Your task to perform on an android device: Look up the best rated coffee maker on Lowe's. Image 0: 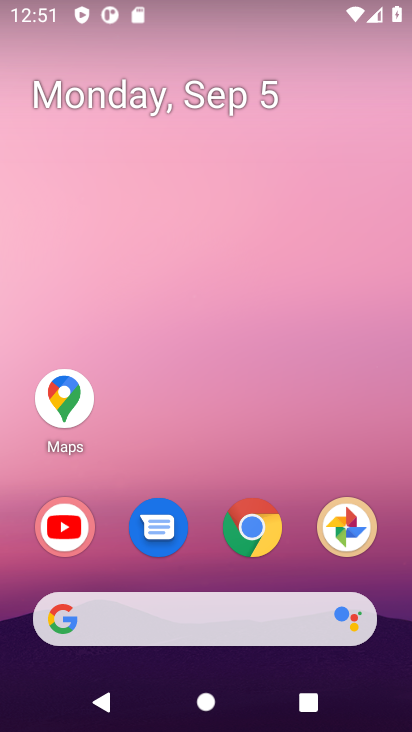
Step 0: click (261, 540)
Your task to perform on an android device: Look up the best rated coffee maker on Lowe's. Image 1: 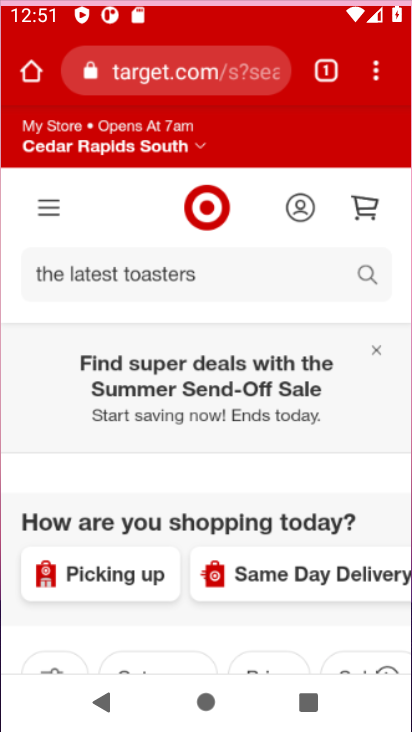
Step 1: click (193, 81)
Your task to perform on an android device: Look up the best rated coffee maker on Lowe's. Image 2: 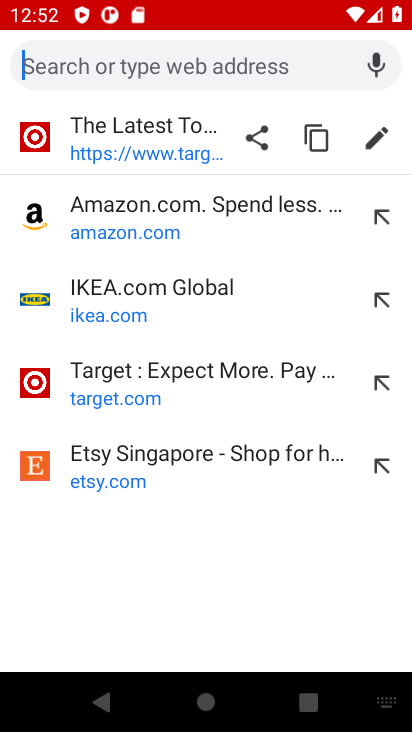
Step 2: type "Lowe's"
Your task to perform on an android device: Look up the best rated coffee maker on Lowe's. Image 3: 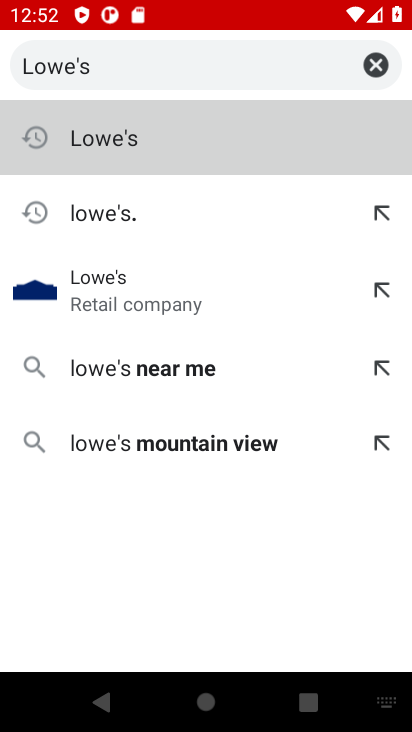
Step 3: click (119, 142)
Your task to perform on an android device: Look up the best rated coffee maker on Lowe's. Image 4: 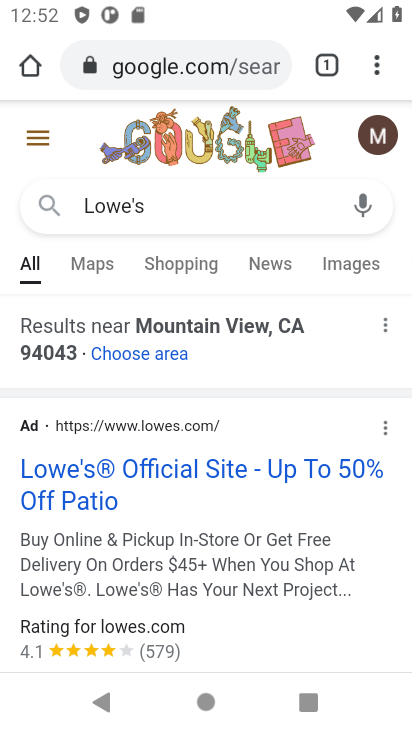
Step 4: click (125, 493)
Your task to perform on an android device: Look up the best rated coffee maker on Lowe's. Image 5: 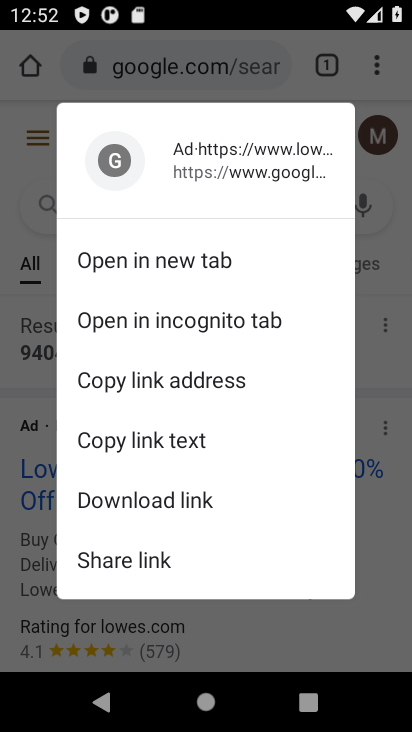
Step 5: click (22, 488)
Your task to perform on an android device: Look up the best rated coffee maker on Lowe's. Image 6: 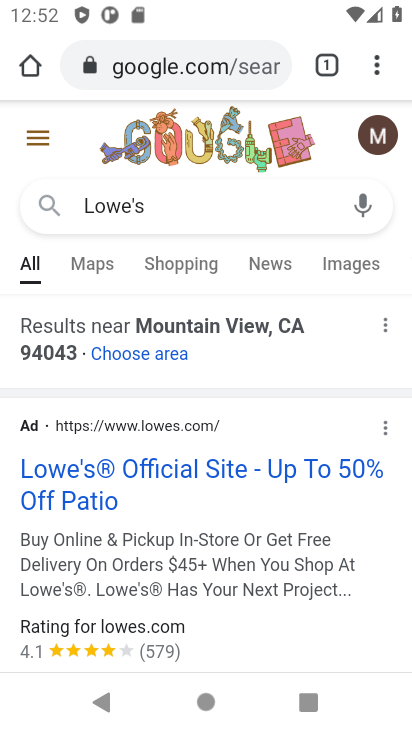
Step 6: click (83, 492)
Your task to perform on an android device: Look up the best rated coffee maker on Lowe's. Image 7: 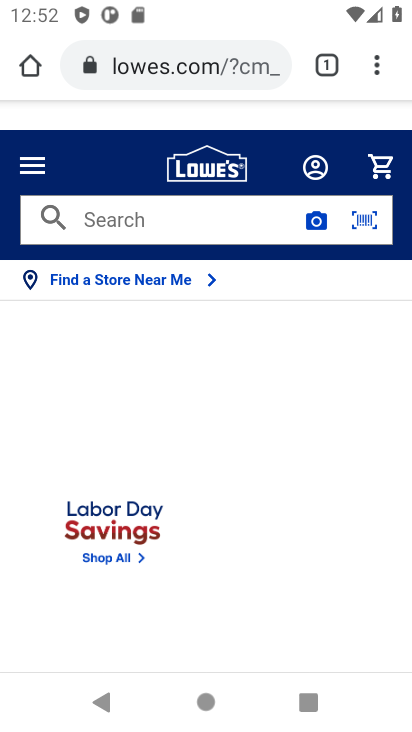
Step 7: click (170, 210)
Your task to perform on an android device: Look up the best rated coffee maker on Lowe's. Image 8: 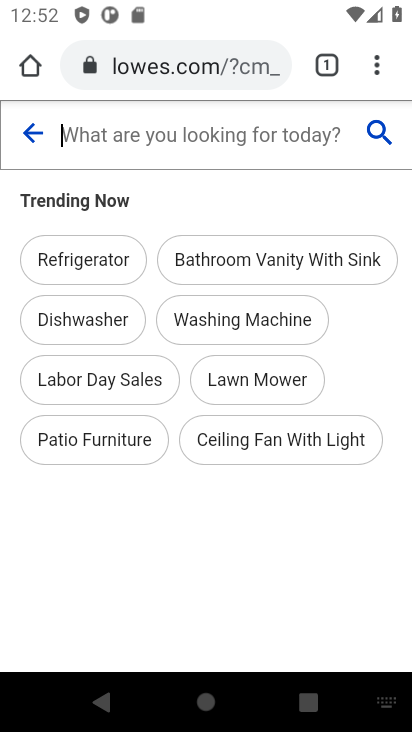
Step 8: type "the best rated coffee maker"
Your task to perform on an android device: Look up the best rated coffee maker on Lowe's. Image 9: 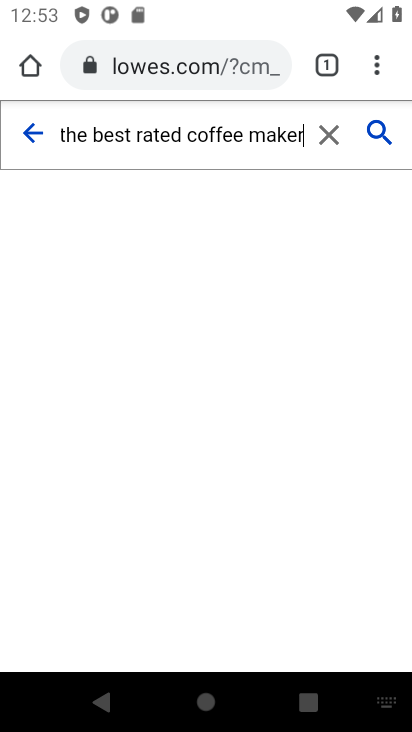
Step 9: click (368, 135)
Your task to perform on an android device: Look up the best rated coffee maker on Lowe's. Image 10: 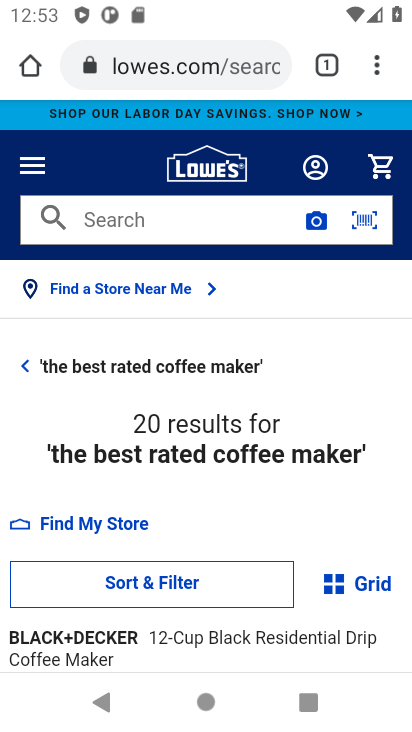
Step 10: task complete